Your task to perform on an android device: Open the calendar and show me this week's events? Image 0: 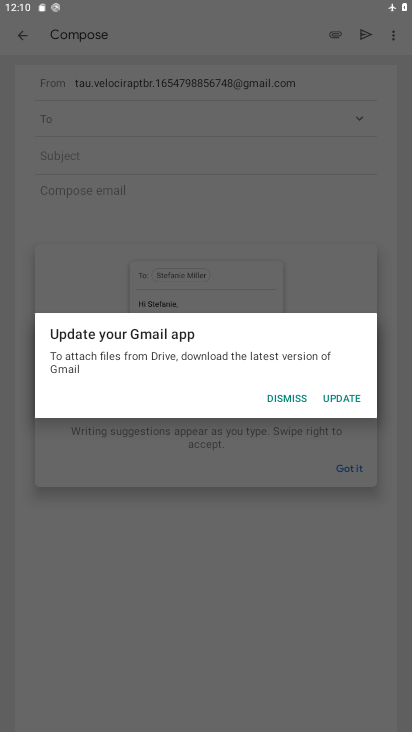
Step 0: press home button
Your task to perform on an android device: Open the calendar and show me this week's events? Image 1: 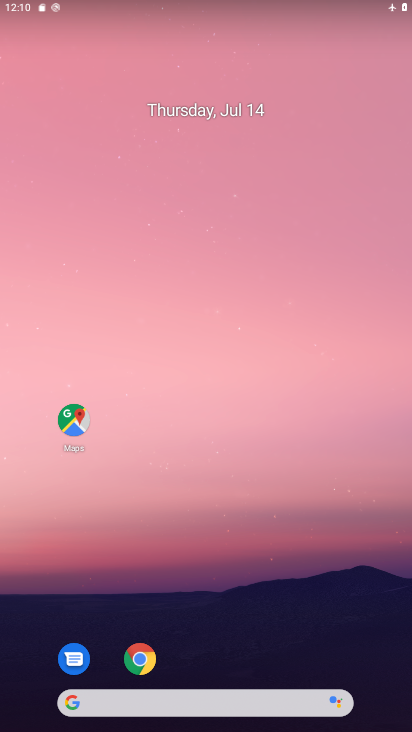
Step 1: drag from (306, 607) to (239, 59)
Your task to perform on an android device: Open the calendar and show me this week's events? Image 2: 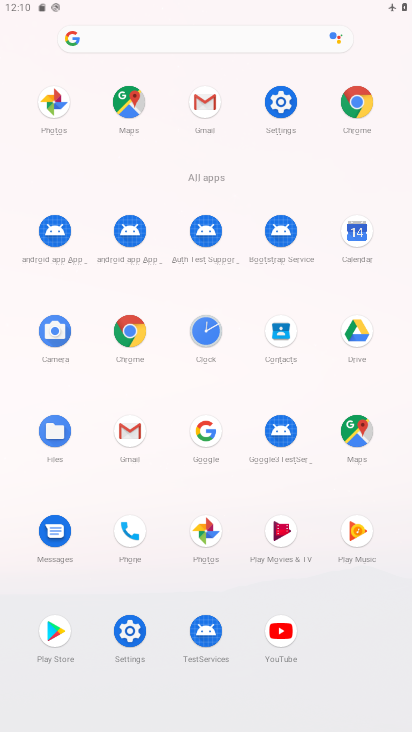
Step 2: click (354, 231)
Your task to perform on an android device: Open the calendar and show me this week's events? Image 3: 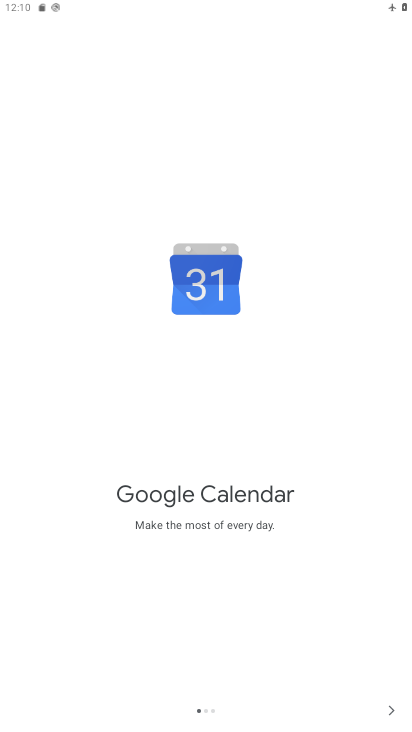
Step 3: click (398, 707)
Your task to perform on an android device: Open the calendar and show me this week's events? Image 4: 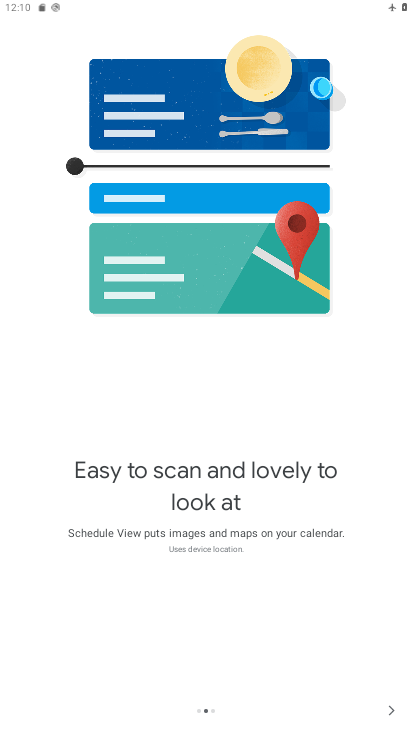
Step 4: click (398, 703)
Your task to perform on an android device: Open the calendar and show me this week's events? Image 5: 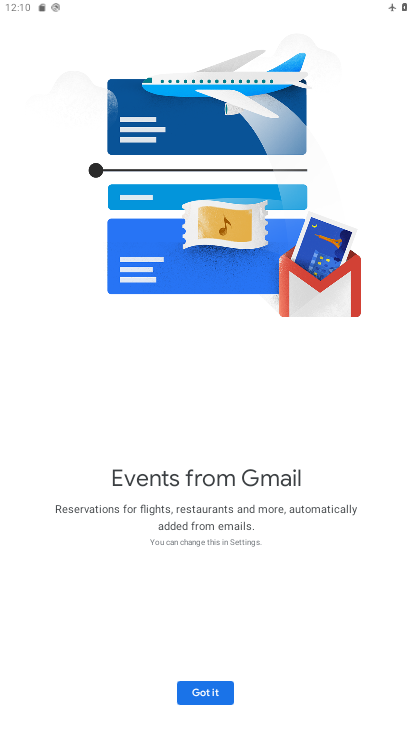
Step 5: click (223, 700)
Your task to perform on an android device: Open the calendar and show me this week's events? Image 6: 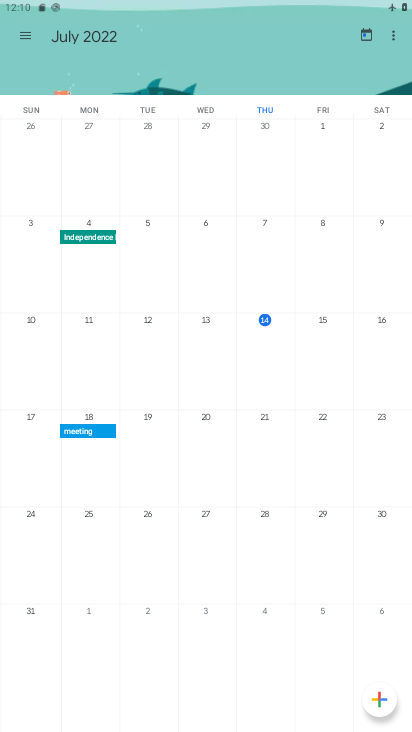
Step 6: click (22, 28)
Your task to perform on an android device: Open the calendar and show me this week's events? Image 7: 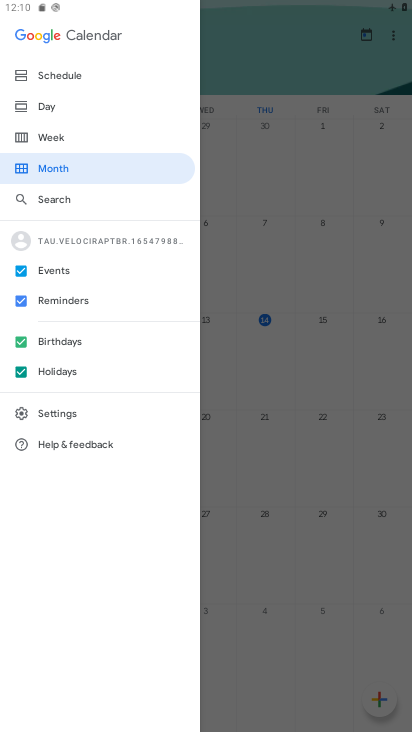
Step 7: click (57, 144)
Your task to perform on an android device: Open the calendar and show me this week's events? Image 8: 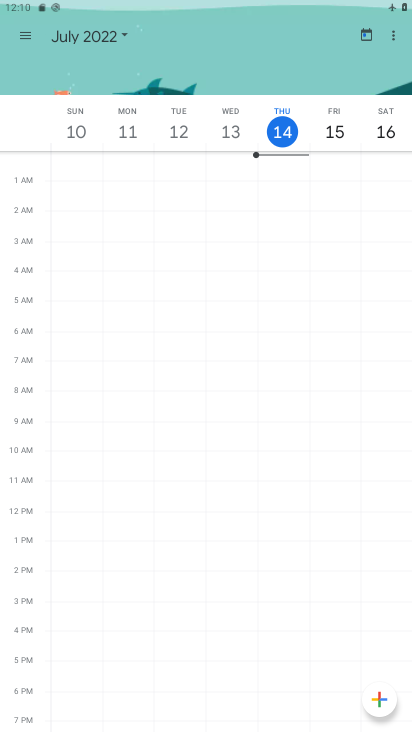
Step 8: task complete